Your task to perform on an android device: toggle javascript in the chrome app Image 0: 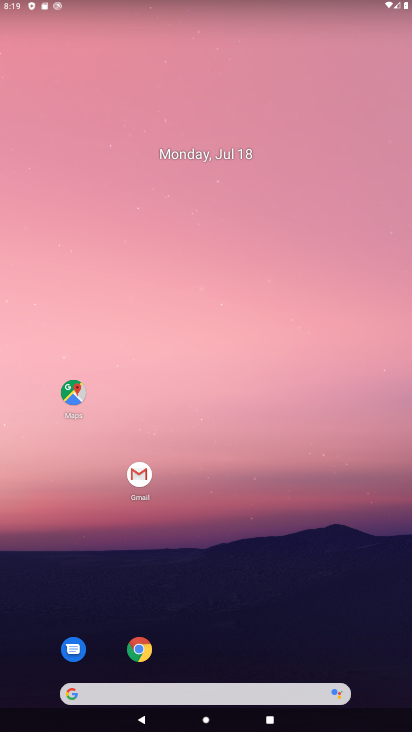
Step 0: drag from (316, 483) to (271, 262)
Your task to perform on an android device: toggle javascript in the chrome app Image 1: 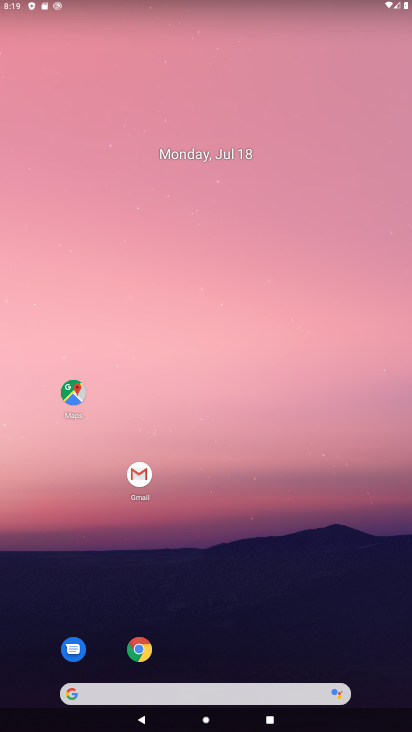
Step 1: drag from (262, 540) to (206, 287)
Your task to perform on an android device: toggle javascript in the chrome app Image 2: 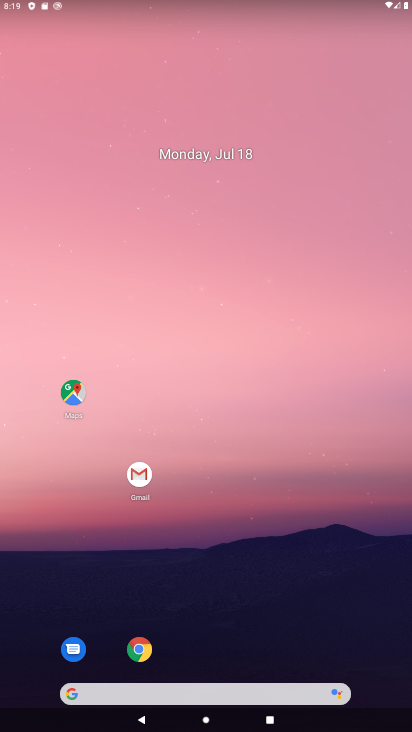
Step 2: click (145, 654)
Your task to perform on an android device: toggle javascript in the chrome app Image 3: 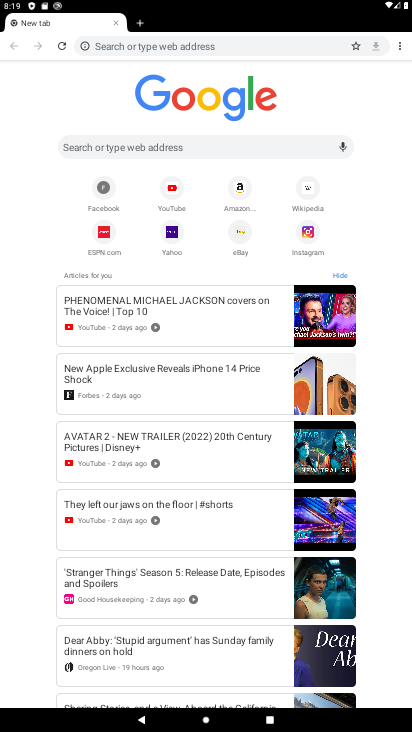
Step 3: click (399, 44)
Your task to perform on an android device: toggle javascript in the chrome app Image 4: 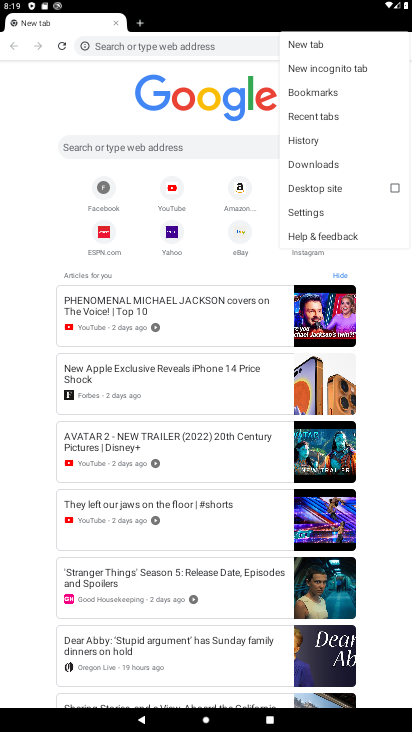
Step 4: click (314, 216)
Your task to perform on an android device: toggle javascript in the chrome app Image 5: 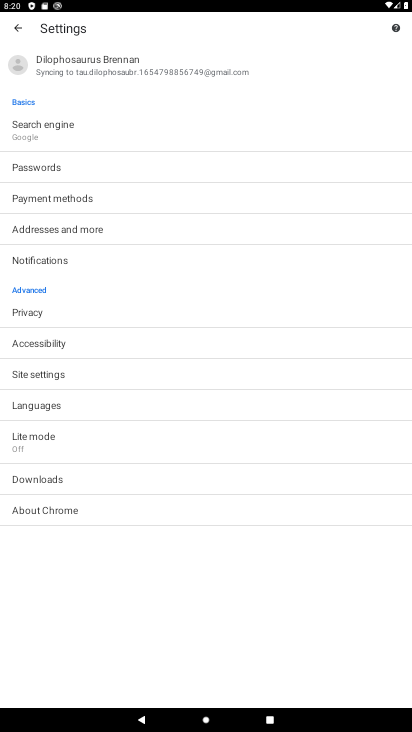
Step 5: click (19, 30)
Your task to perform on an android device: toggle javascript in the chrome app Image 6: 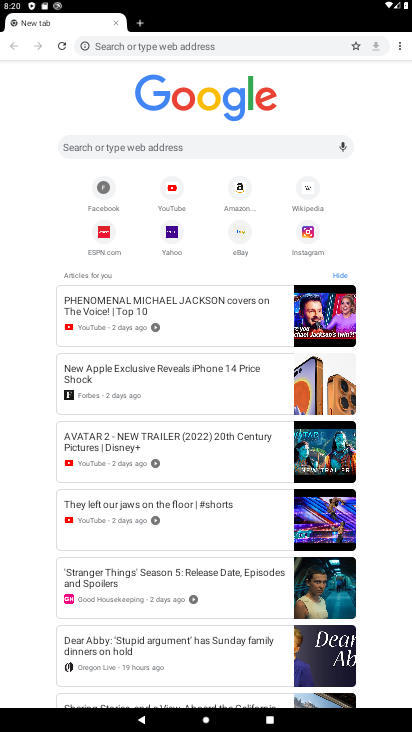
Step 6: task complete